Your task to perform on an android device: change the clock display to analog Image 0: 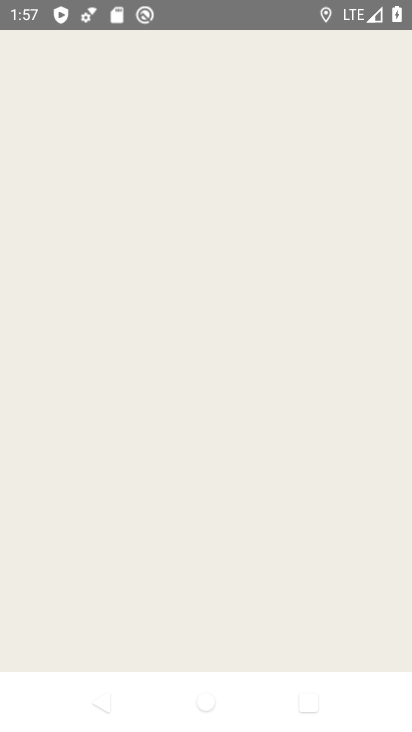
Step 0: press home button
Your task to perform on an android device: change the clock display to analog Image 1: 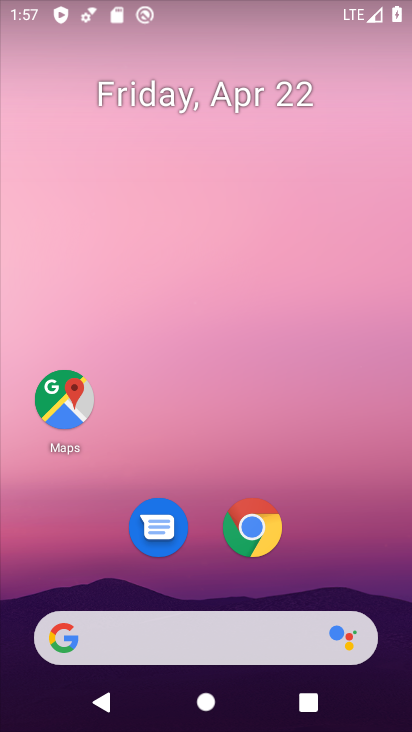
Step 1: drag from (314, 453) to (293, 158)
Your task to perform on an android device: change the clock display to analog Image 2: 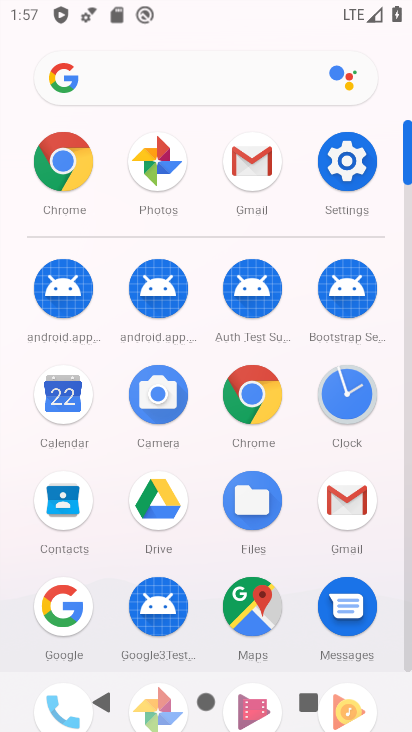
Step 2: click (339, 387)
Your task to perform on an android device: change the clock display to analog Image 3: 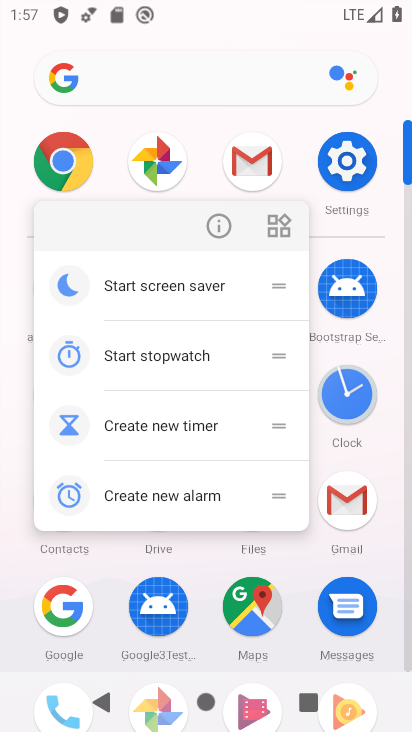
Step 3: click (343, 387)
Your task to perform on an android device: change the clock display to analog Image 4: 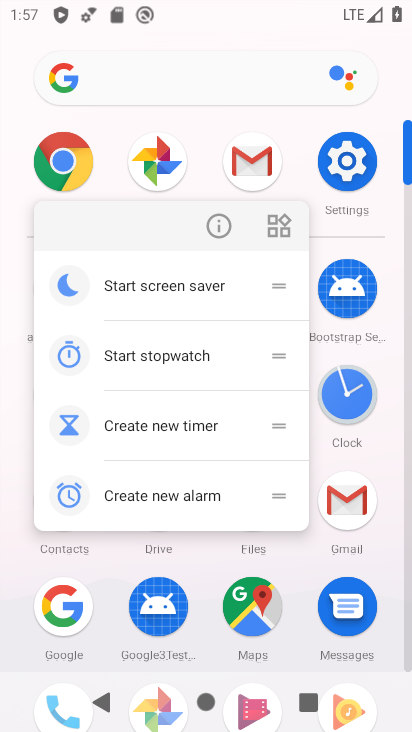
Step 4: click (358, 386)
Your task to perform on an android device: change the clock display to analog Image 5: 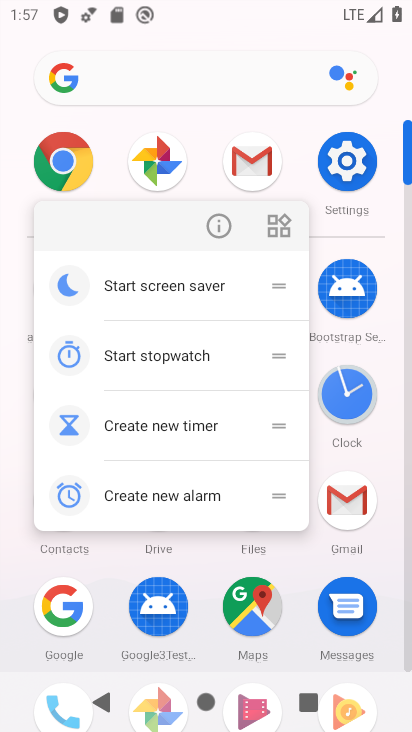
Step 5: click (349, 390)
Your task to perform on an android device: change the clock display to analog Image 6: 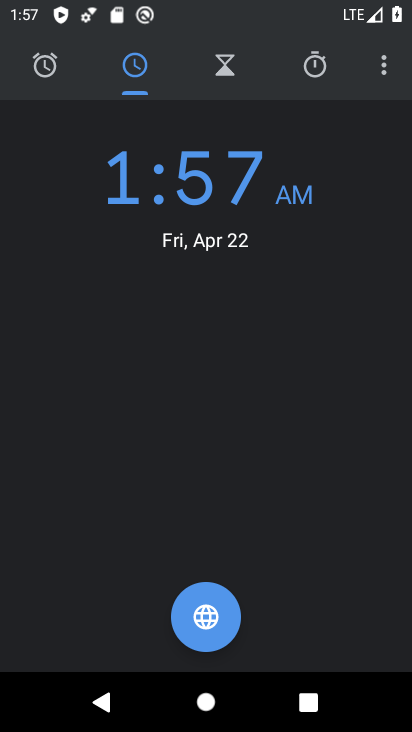
Step 6: click (380, 69)
Your task to perform on an android device: change the clock display to analog Image 7: 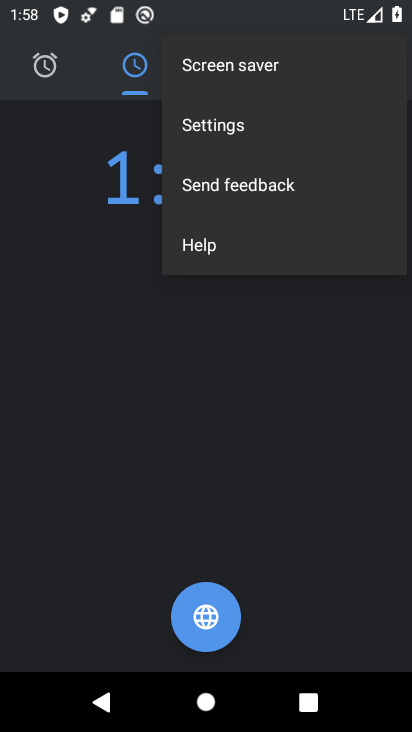
Step 7: click (230, 126)
Your task to perform on an android device: change the clock display to analog Image 8: 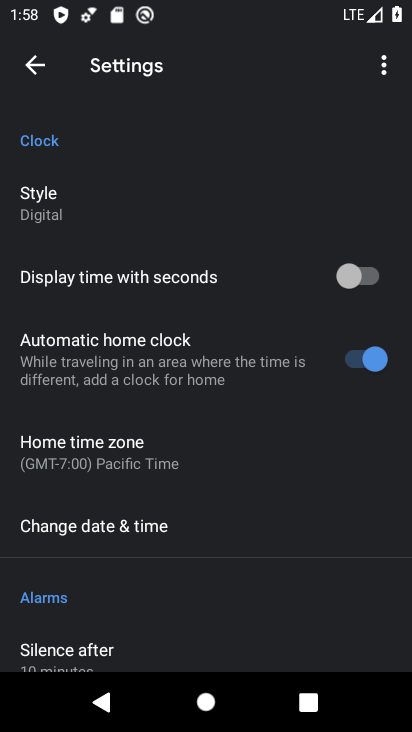
Step 8: click (50, 208)
Your task to perform on an android device: change the clock display to analog Image 9: 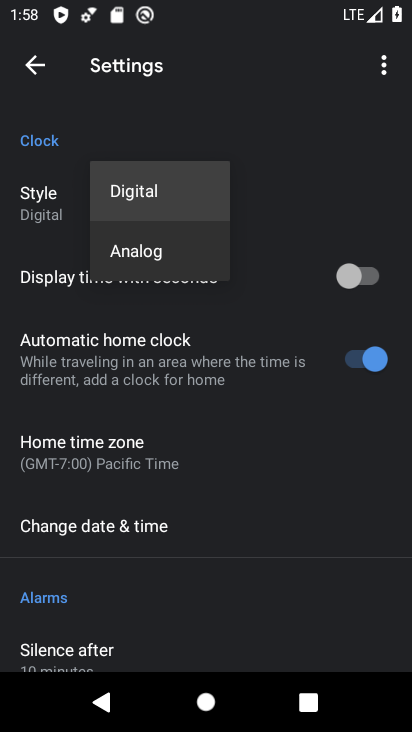
Step 9: click (163, 254)
Your task to perform on an android device: change the clock display to analog Image 10: 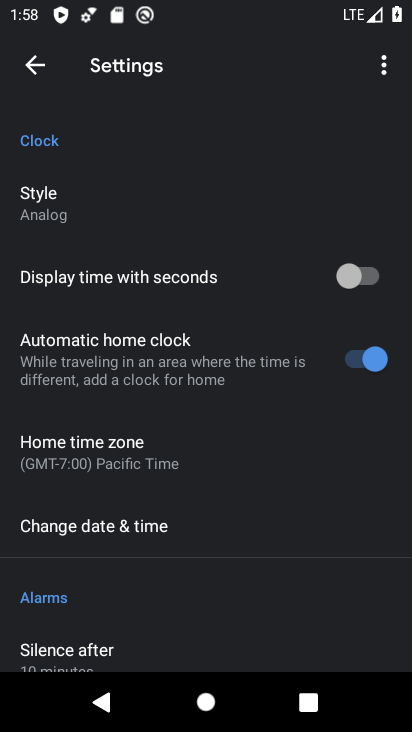
Step 10: task complete